Your task to perform on an android device: turn on wifi Image 0: 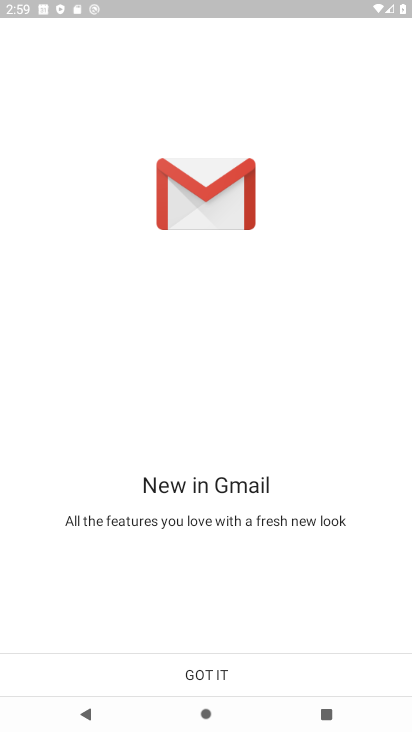
Step 0: press home button
Your task to perform on an android device: turn on wifi Image 1: 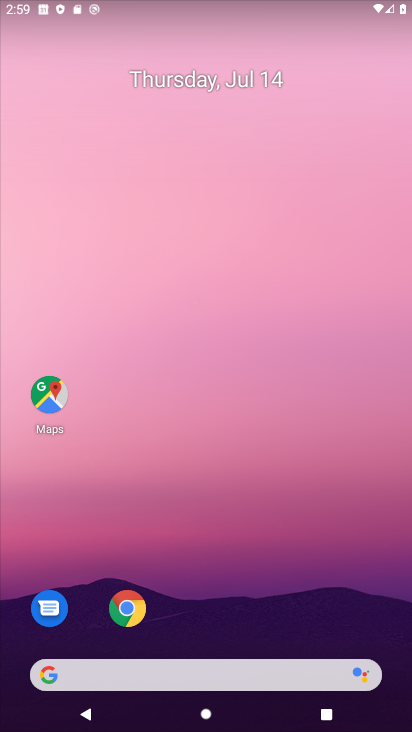
Step 1: drag from (240, 591) to (225, 108)
Your task to perform on an android device: turn on wifi Image 2: 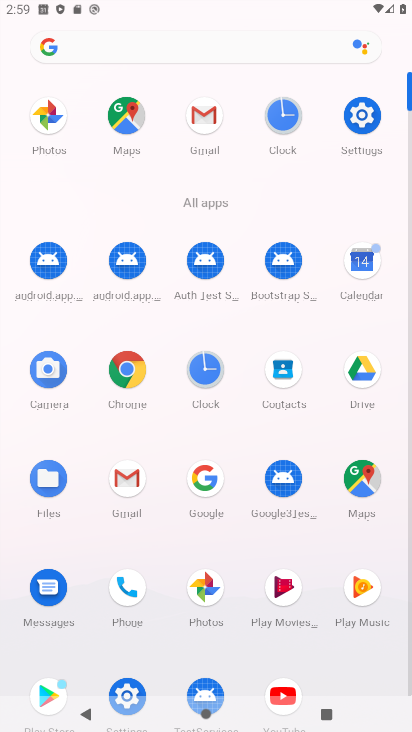
Step 2: click (364, 120)
Your task to perform on an android device: turn on wifi Image 3: 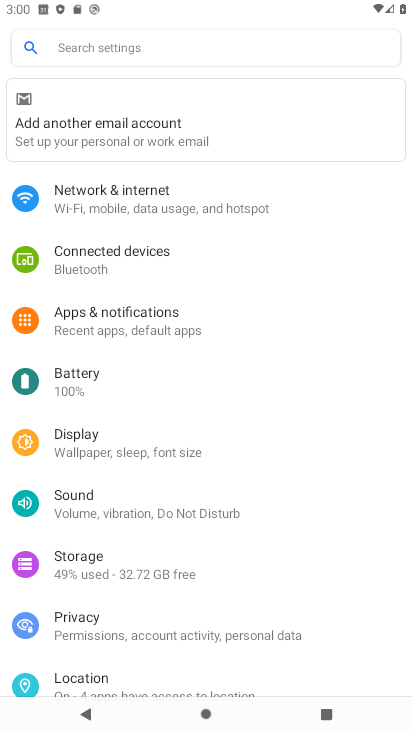
Step 3: click (118, 211)
Your task to perform on an android device: turn on wifi Image 4: 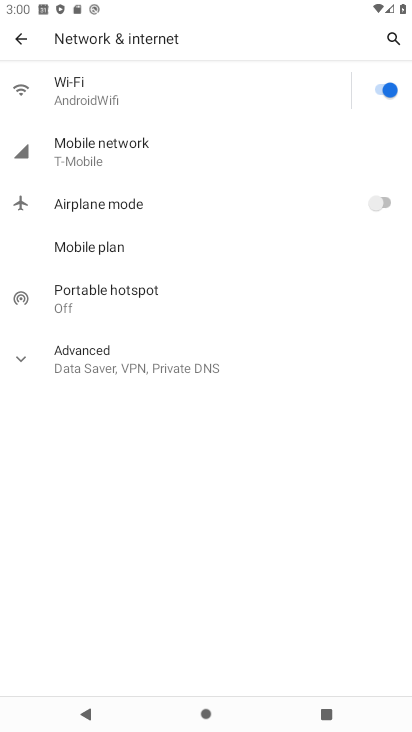
Step 4: task complete